Your task to perform on an android device: toggle airplane mode Image 0: 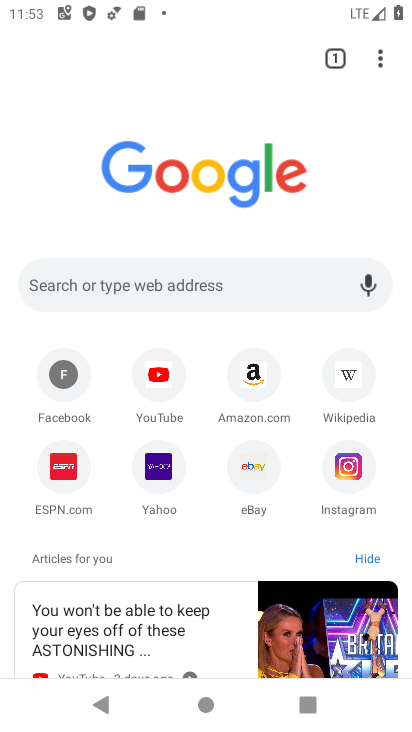
Step 0: drag from (237, 553) to (207, 84)
Your task to perform on an android device: toggle airplane mode Image 1: 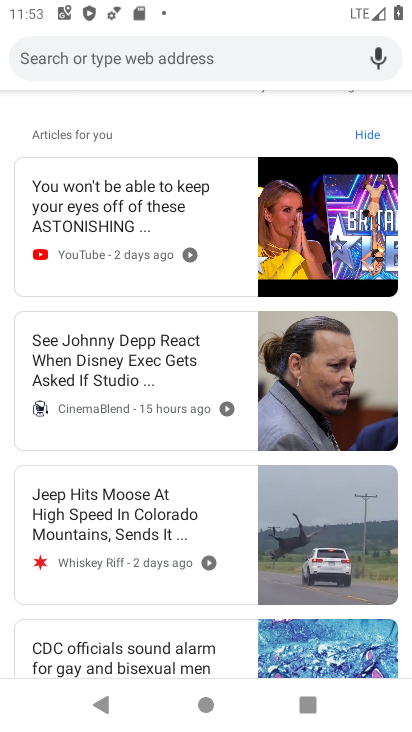
Step 1: press home button
Your task to perform on an android device: toggle airplane mode Image 2: 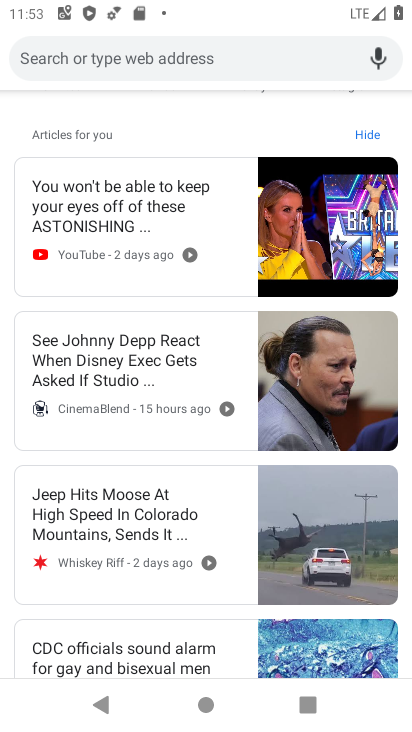
Step 2: drag from (219, 508) to (233, 43)
Your task to perform on an android device: toggle airplane mode Image 3: 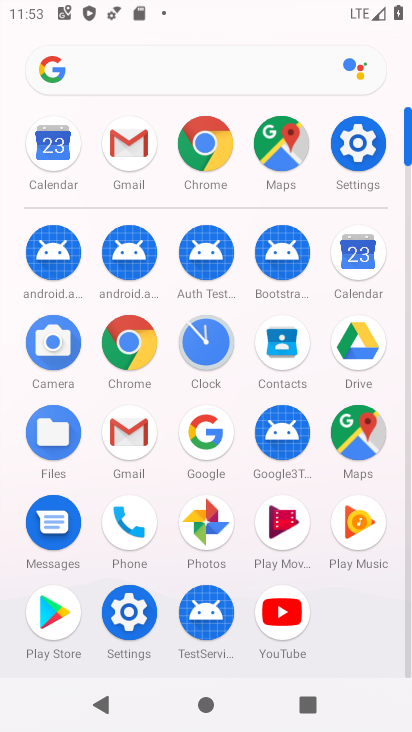
Step 3: click (143, 609)
Your task to perform on an android device: toggle airplane mode Image 4: 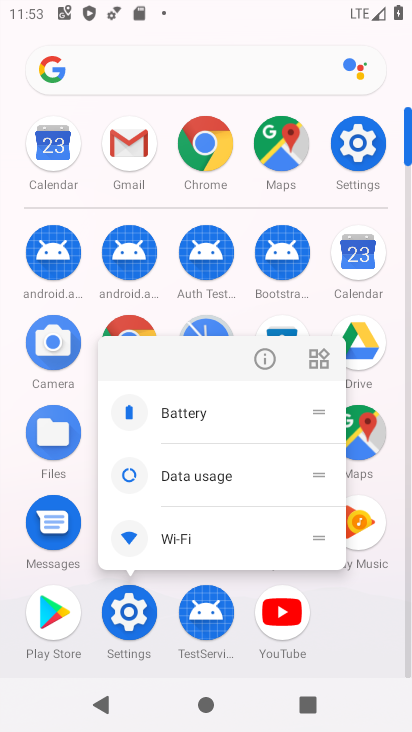
Step 4: click (271, 357)
Your task to perform on an android device: toggle airplane mode Image 5: 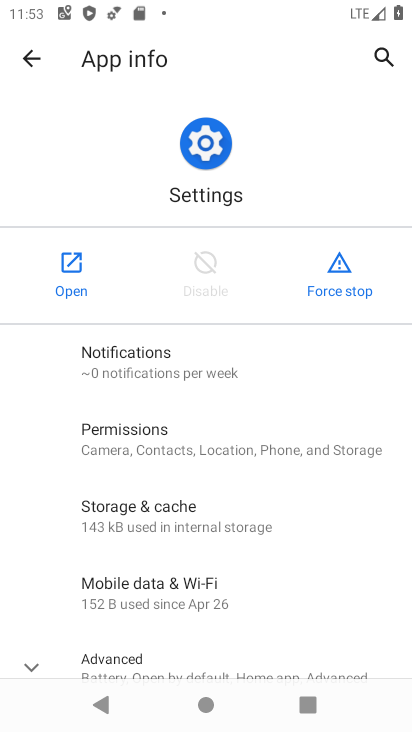
Step 5: click (77, 282)
Your task to perform on an android device: toggle airplane mode Image 6: 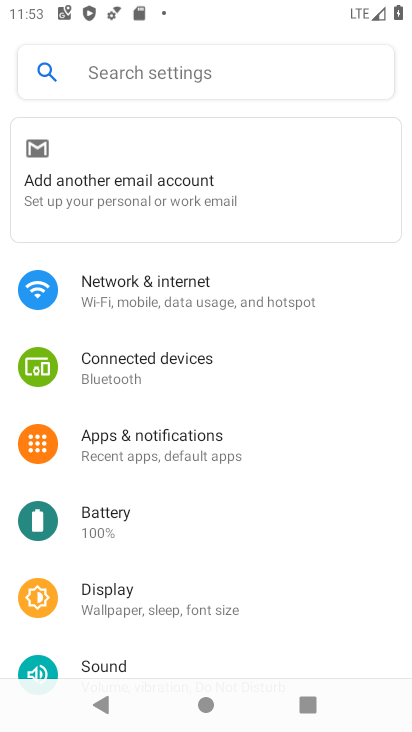
Step 6: click (209, 310)
Your task to perform on an android device: toggle airplane mode Image 7: 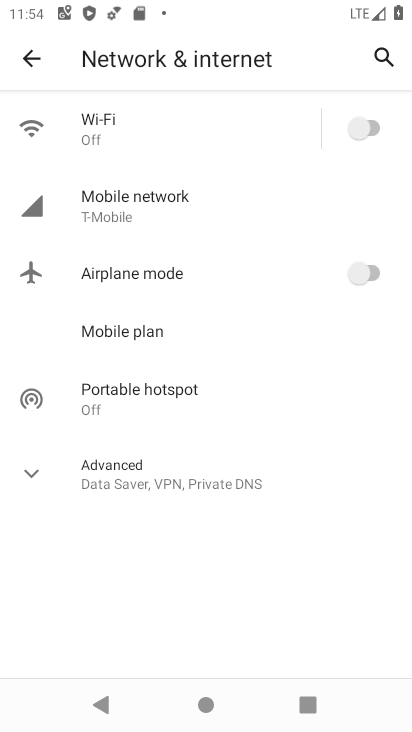
Step 7: click (239, 268)
Your task to perform on an android device: toggle airplane mode Image 8: 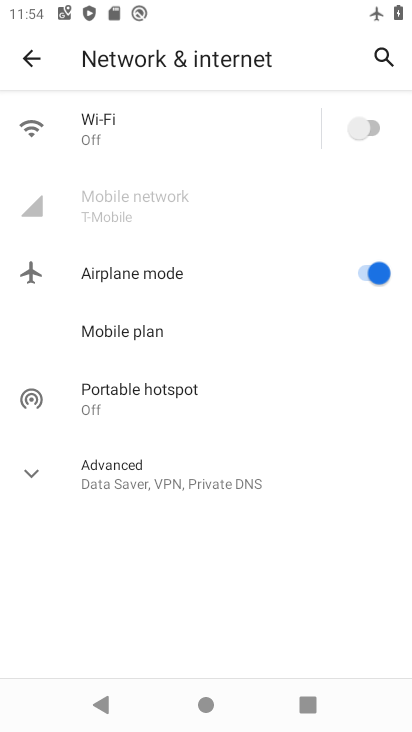
Step 8: task complete